Your task to perform on an android device: Search for "razer thresher" on newegg.com, select the first entry, add it to the cart, then select checkout. Image 0: 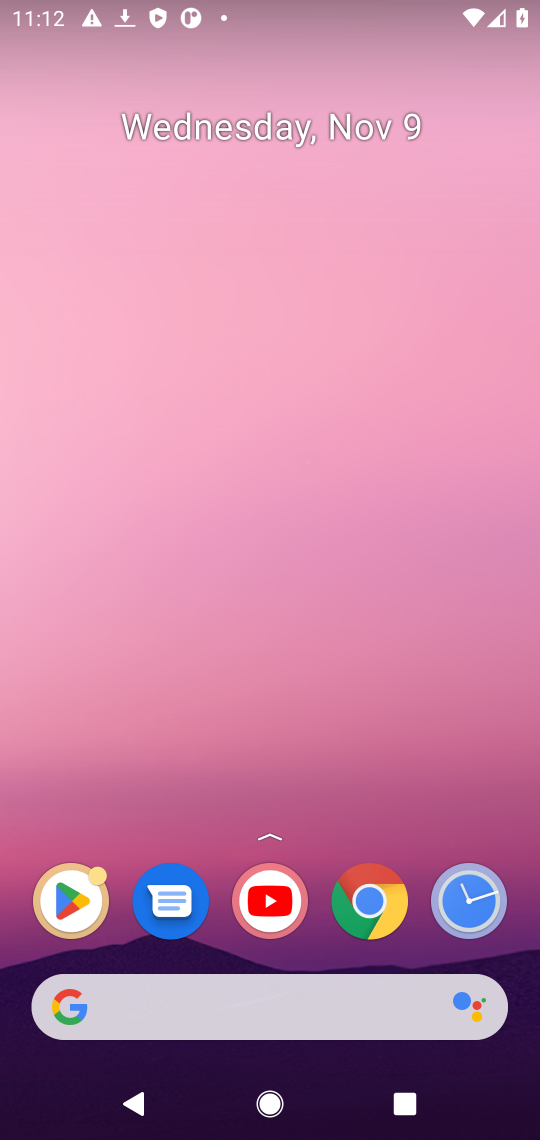
Step 0: click (379, 885)
Your task to perform on an android device: Search for "razer thresher" on newegg.com, select the first entry, add it to the cart, then select checkout. Image 1: 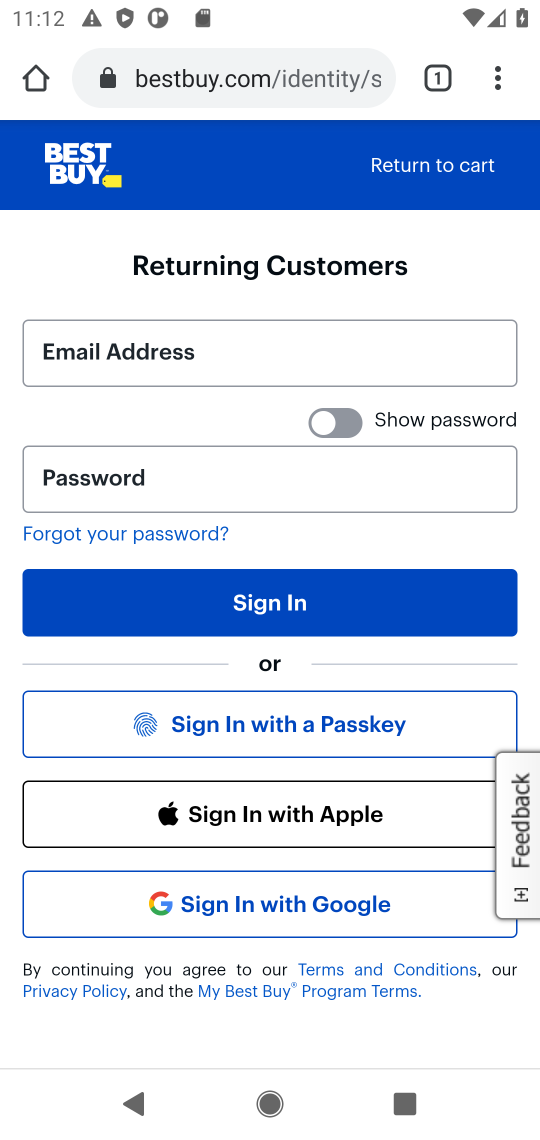
Step 1: click (267, 70)
Your task to perform on an android device: Search for "razer thresher" on newegg.com, select the first entry, add it to the cart, then select checkout. Image 2: 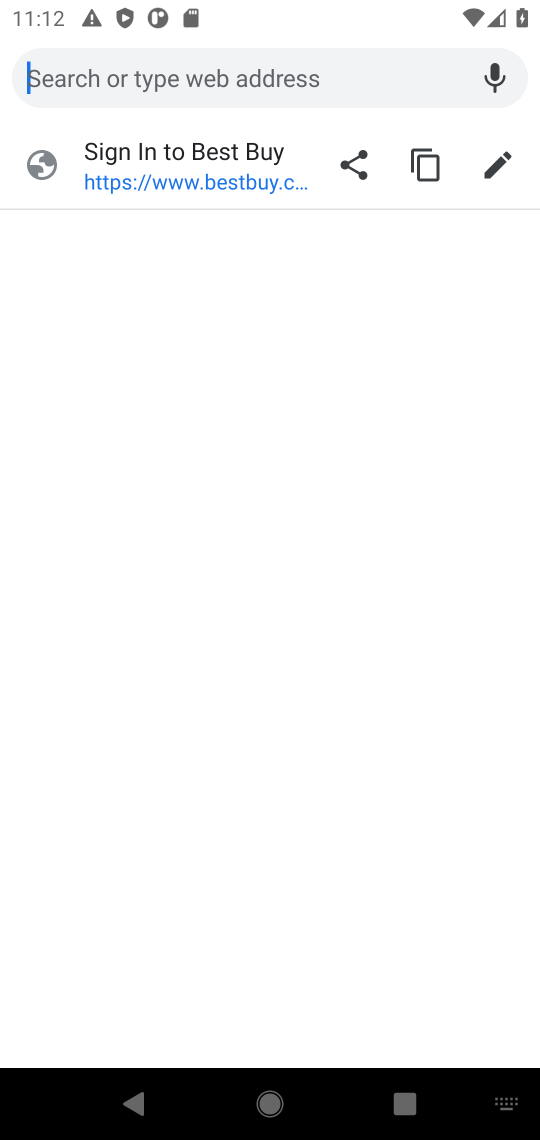
Step 2: type "newegg.com"
Your task to perform on an android device: Search for "razer thresher" on newegg.com, select the first entry, add it to the cart, then select checkout. Image 3: 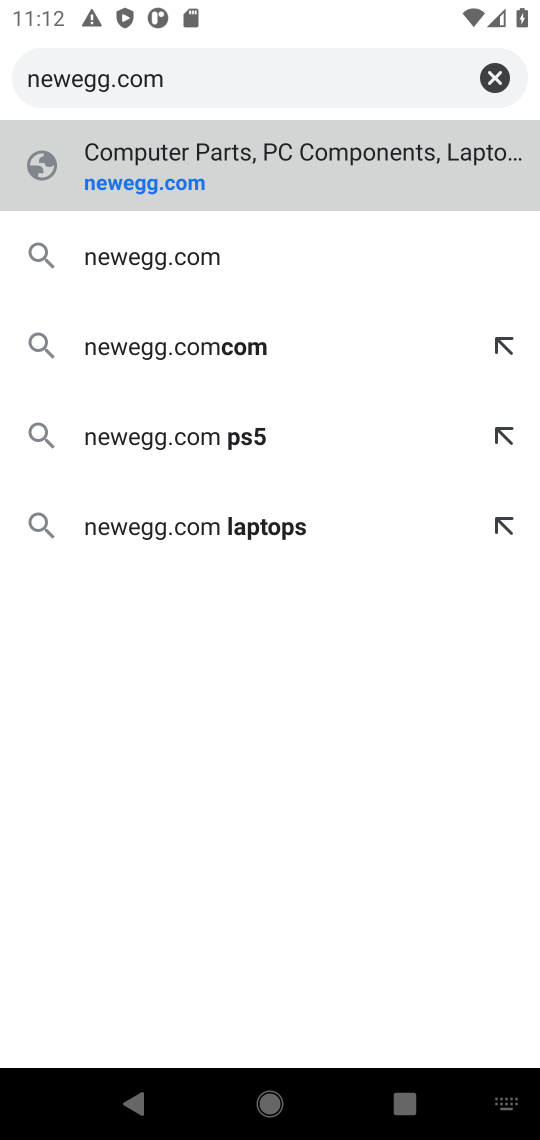
Step 3: press enter
Your task to perform on an android device: Search for "razer thresher" on newegg.com, select the first entry, add it to the cart, then select checkout. Image 4: 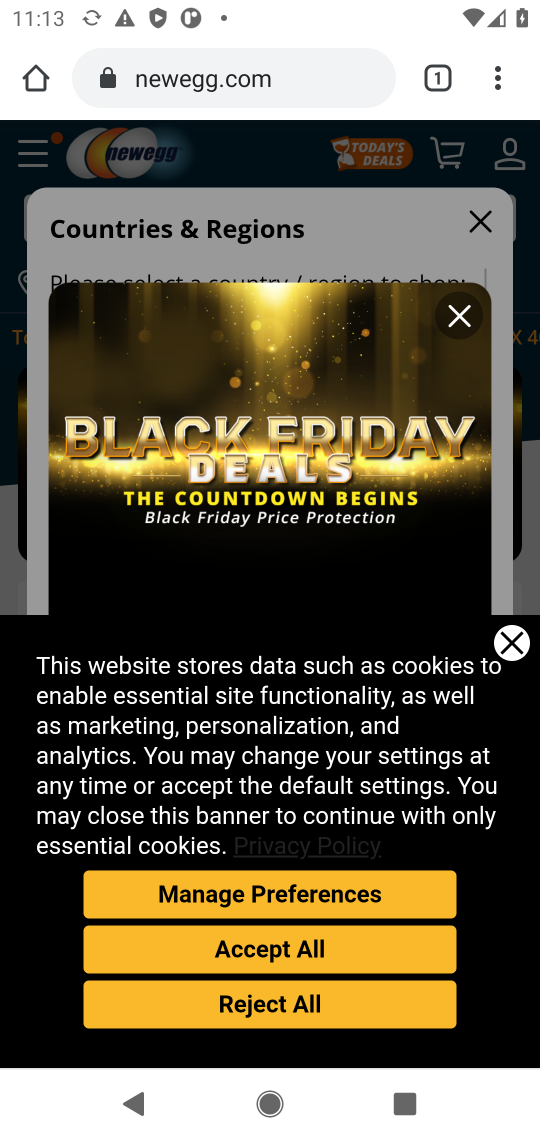
Step 4: click (278, 943)
Your task to perform on an android device: Search for "razer thresher" on newegg.com, select the first entry, add it to the cart, then select checkout. Image 5: 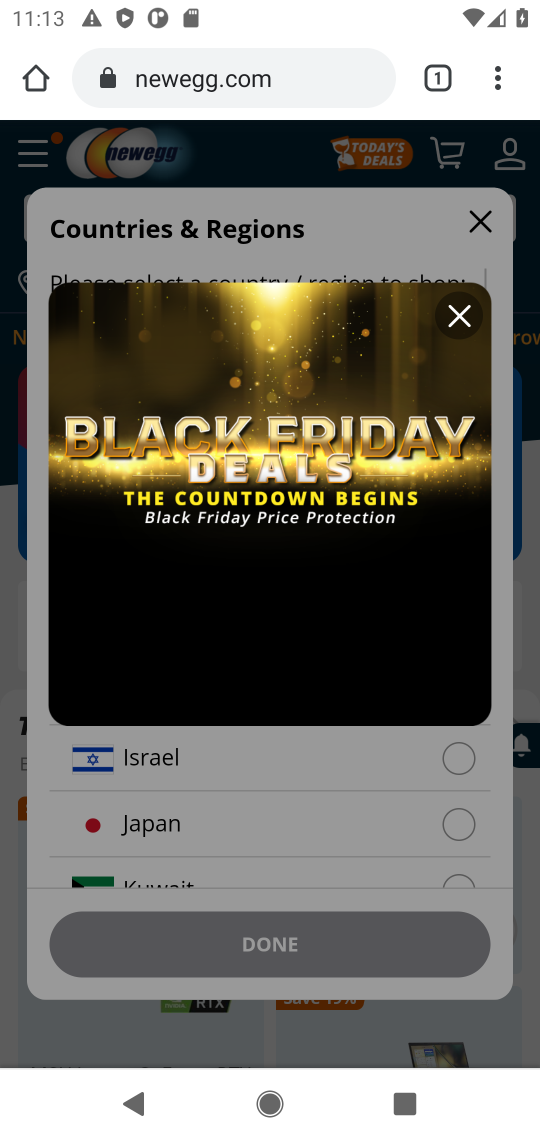
Step 5: click (462, 311)
Your task to perform on an android device: Search for "razer thresher" on newegg.com, select the first entry, add it to the cart, then select checkout. Image 6: 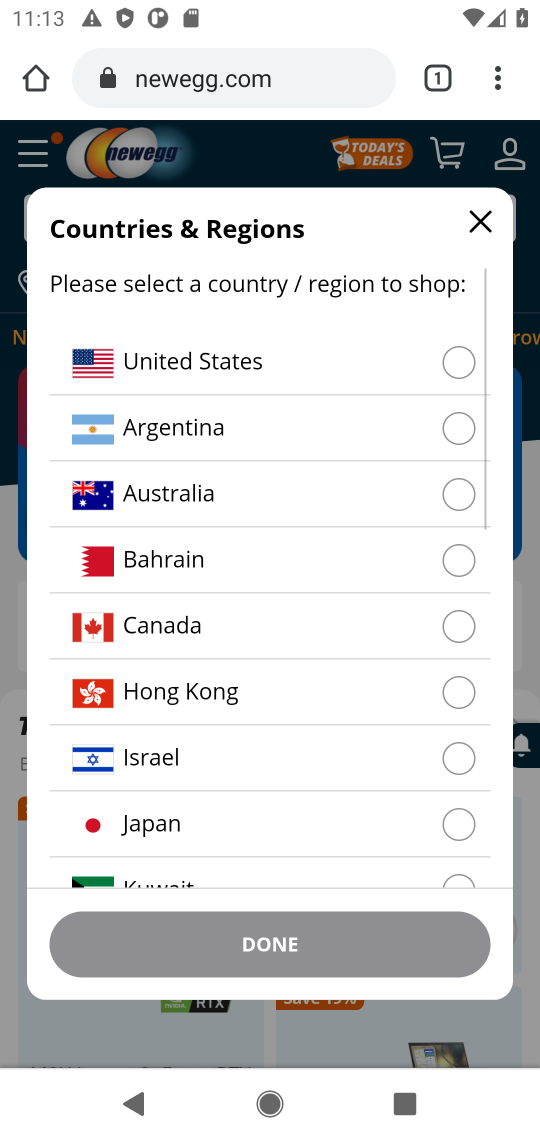
Step 6: click (463, 364)
Your task to perform on an android device: Search for "razer thresher" on newegg.com, select the first entry, add it to the cart, then select checkout. Image 7: 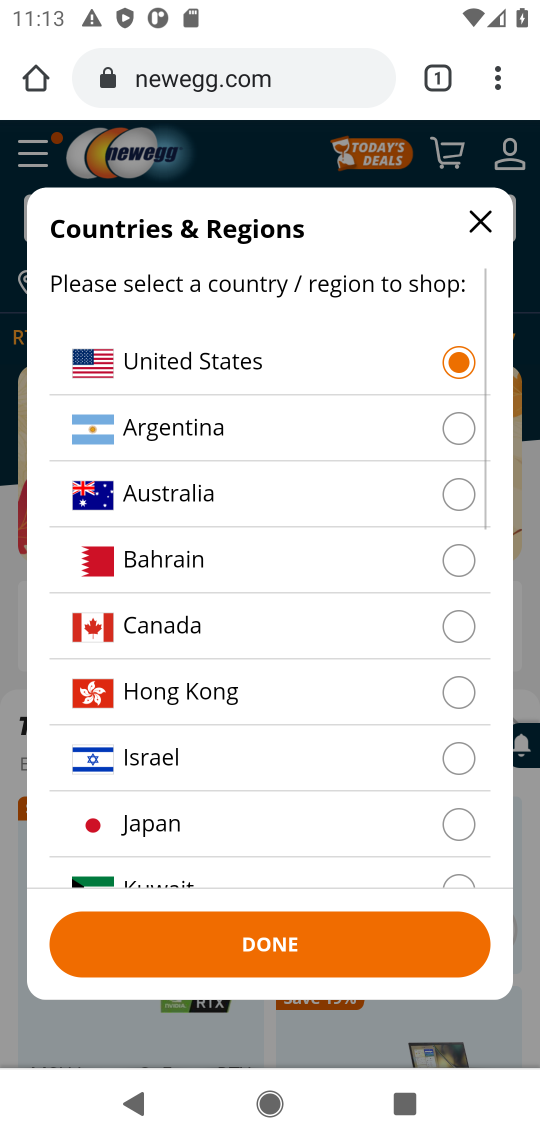
Step 7: click (368, 941)
Your task to perform on an android device: Search for "razer thresher" on newegg.com, select the first entry, add it to the cart, then select checkout. Image 8: 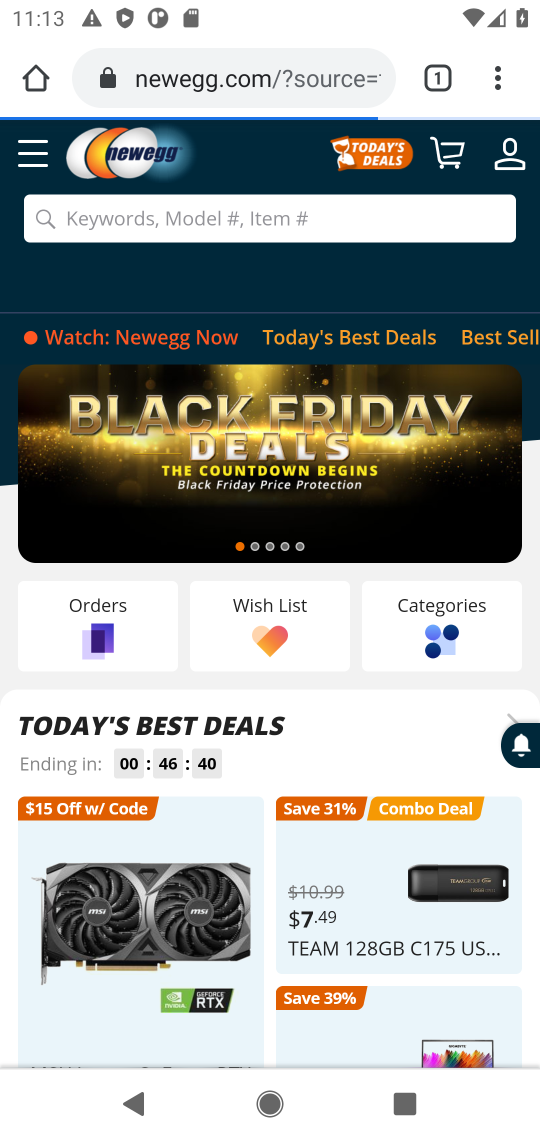
Step 8: click (326, 224)
Your task to perform on an android device: Search for "razer thresher" on newegg.com, select the first entry, add it to the cart, then select checkout. Image 9: 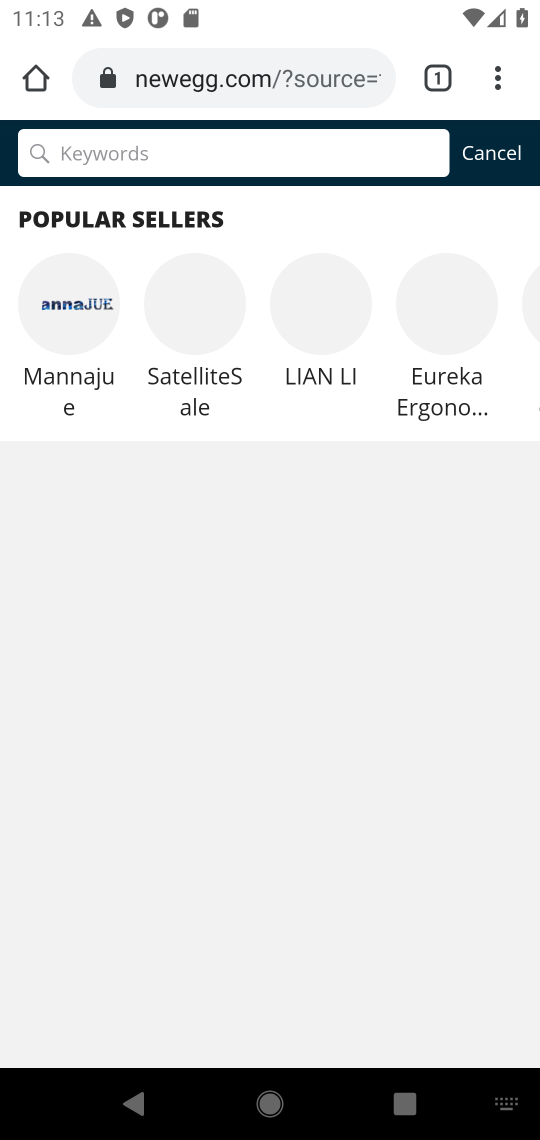
Step 9: type "razer thresher"
Your task to perform on an android device: Search for "razer thresher" on newegg.com, select the first entry, add it to the cart, then select checkout. Image 10: 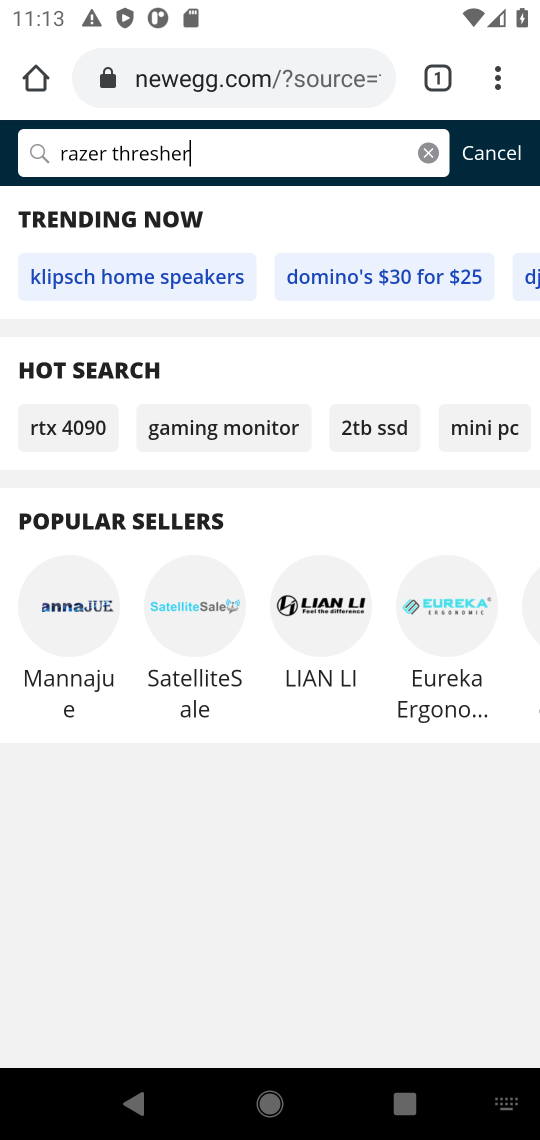
Step 10: press enter
Your task to perform on an android device: Search for "razer thresher" on newegg.com, select the first entry, add it to the cart, then select checkout. Image 11: 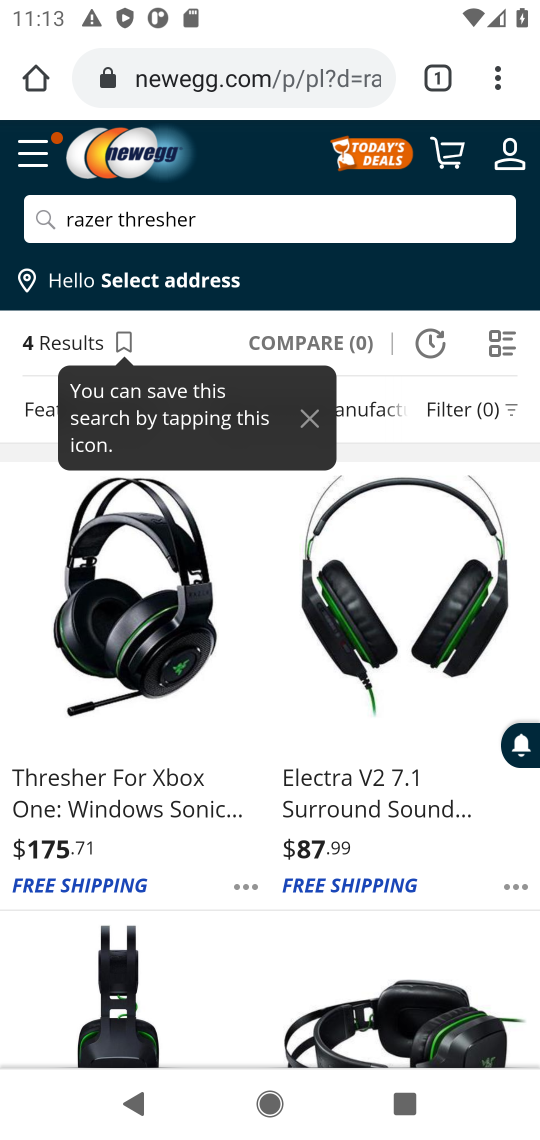
Step 11: drag from (417, 810) to (442, 264)
Your task to perform on an android device: Search for "razer thresher" on newegg.com, select the first entry, add it to the cart, then select checkout. Image 12: 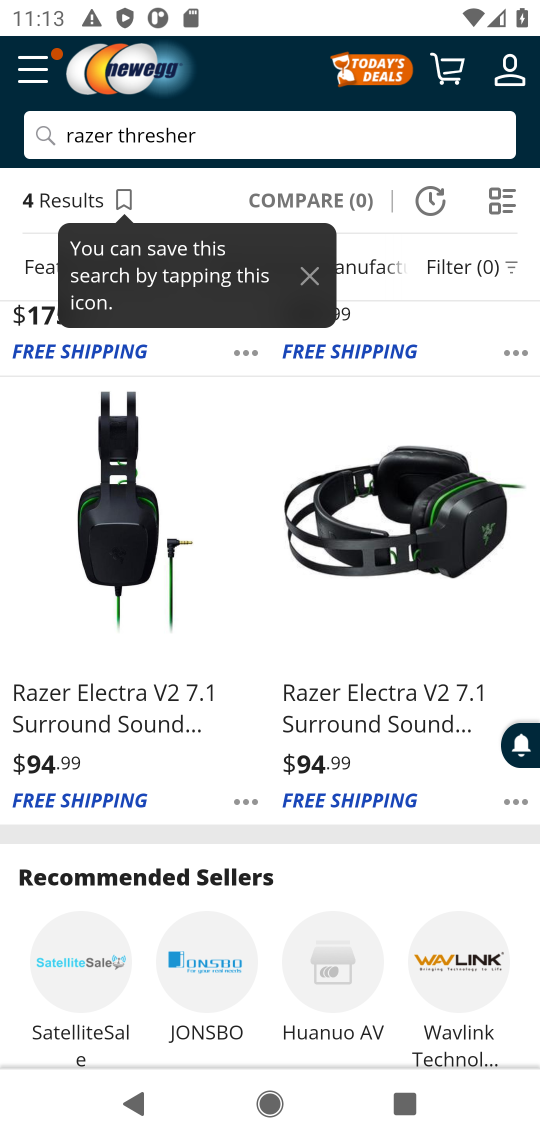
Step 12: drag from (409, 673) to (436, 349)
Your task to perform on an android device: Search for "razer thresher" on newegg.com, select the first entry, add it to the cart, then select checkout. Image 13: 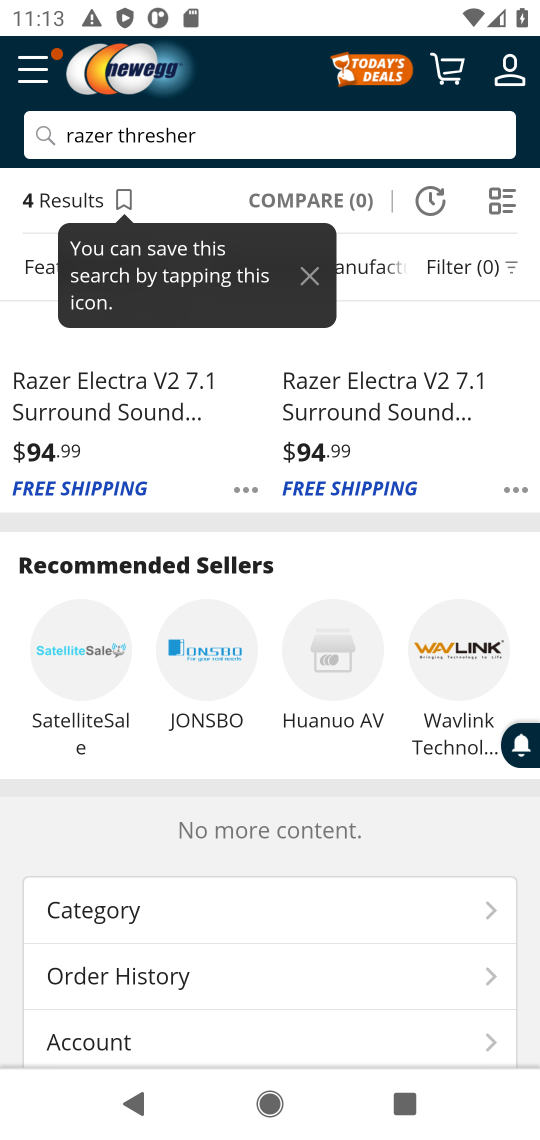
Step 13: drag from (355, 910) to (393, 472)
Your task to perform on an android device: Search for "razer thresher" on newegg.com, select the first entry, add it to the cart, then select checkout. Image 14: 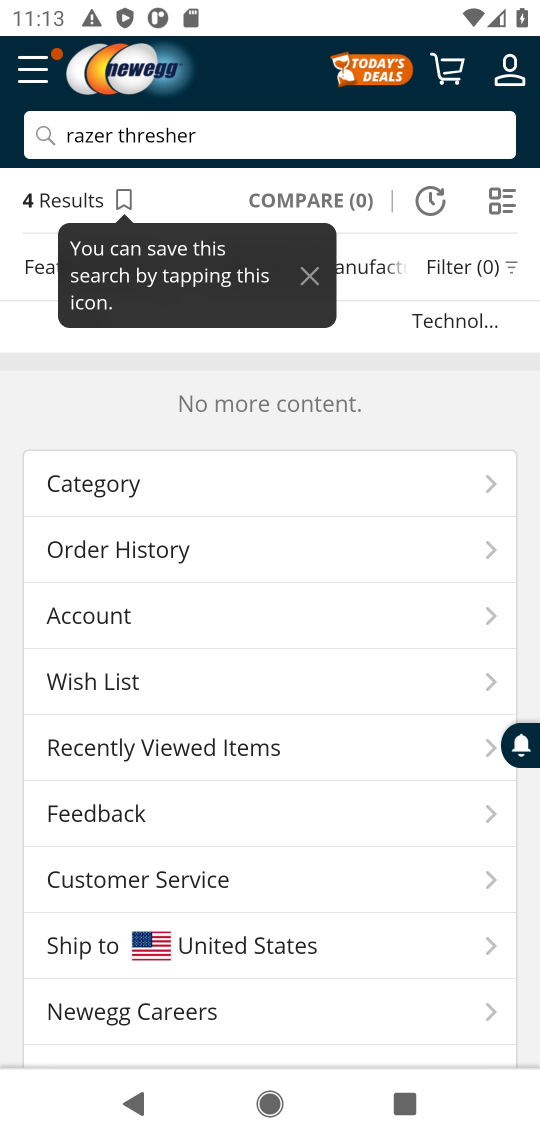
Step 14: drag from (451, 467) to (499, 951)
Your task to perform on an android device: Search for "razer thresher" on newegg.com, select the first entry, add it to the cart, then select checkout. Image 15: 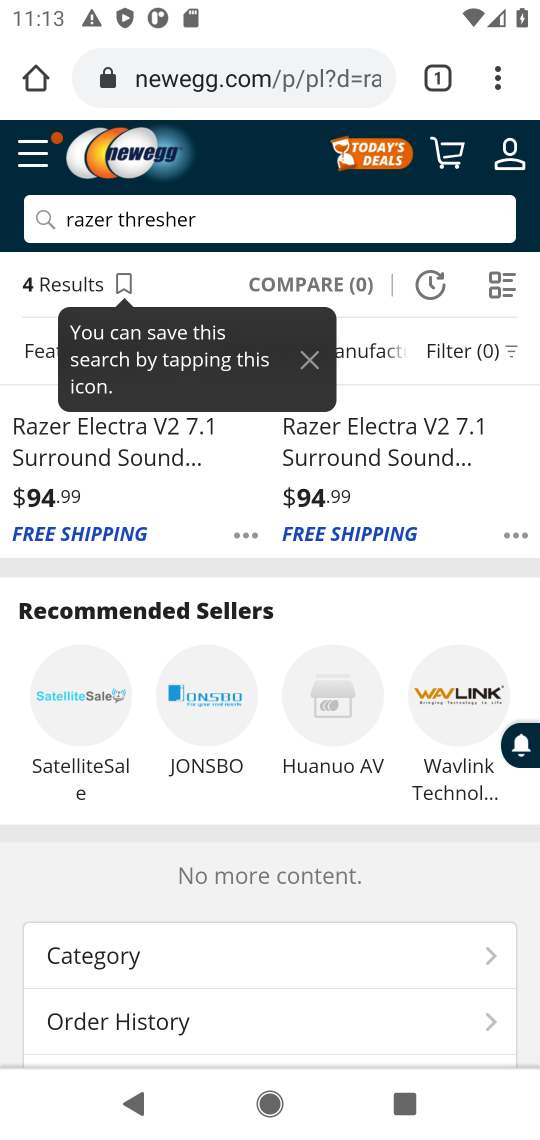
Step 15: drag from (370, 690) to (451, 987)
Your task to perform on an android device: Search for "razer thresher" on newegg.com, select the first entry, add it to the cart, then select checkout. Image 16: 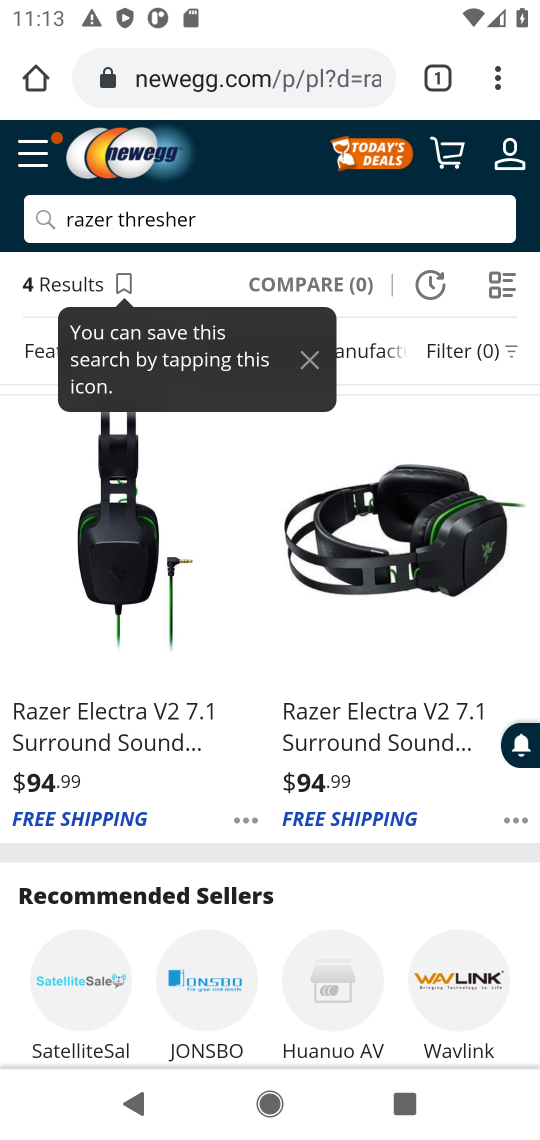
Step 16: drag from (368, 595) to (483, 972)
Your task to perform on an android device: Search for "razer thresher" on newegg.com, select the first entry, add it to the cart, then select checkout. Image 17: 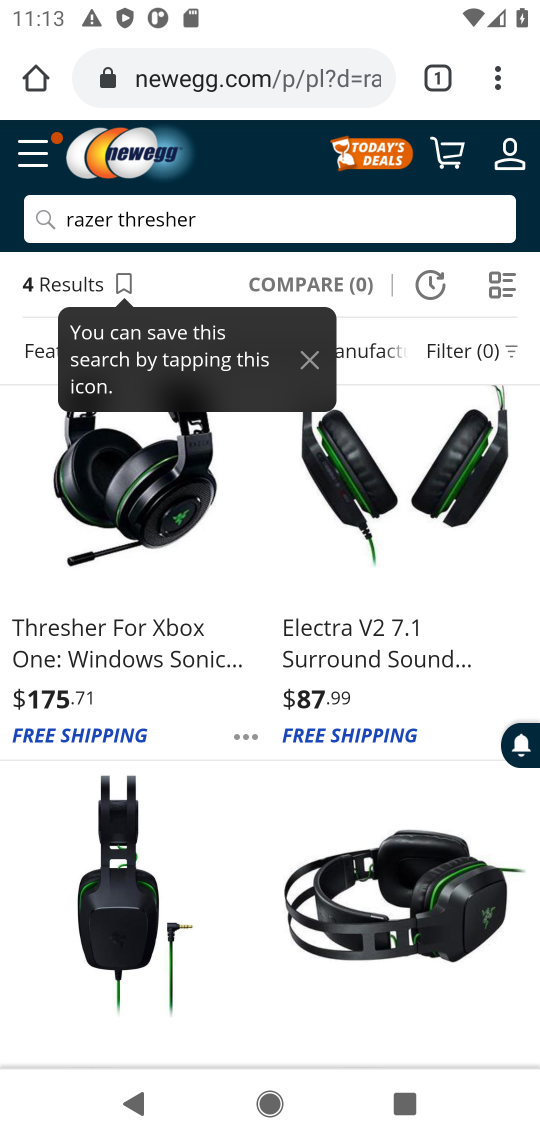
Step 17: drag from (416, 687) to (452, 929)
Your task to perform on an android device: Search for "razer thresher" on newegg.com, select the first entry, add it to the cart, then select checkout. Image 18: 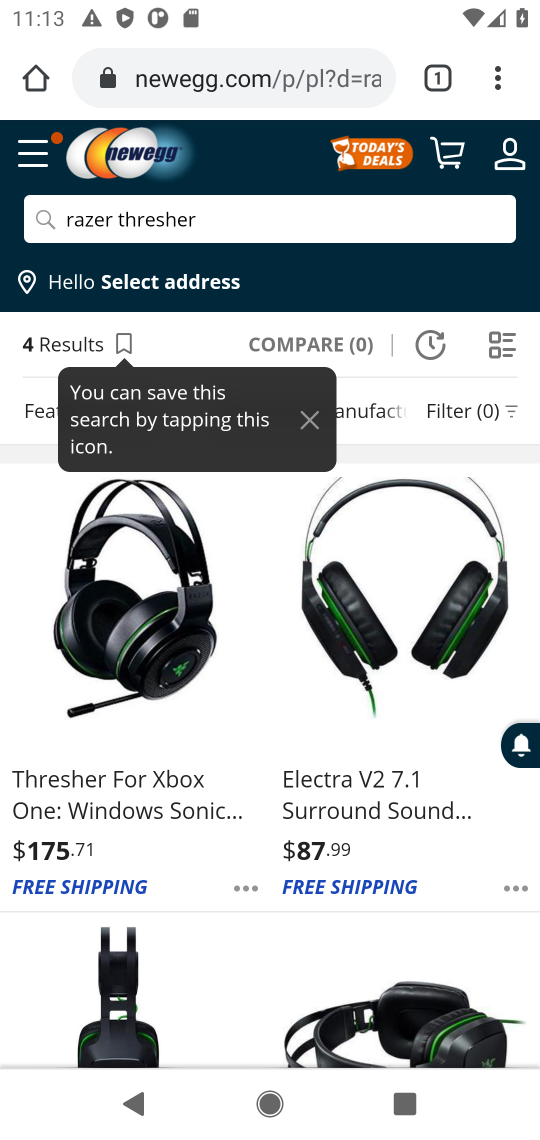
Step 18: click (381, 207)
Your task to perform on an android device: Search for "razer thresher" on newegg.com, select the first entry, add it to the cart, then select checkout. Image 19: 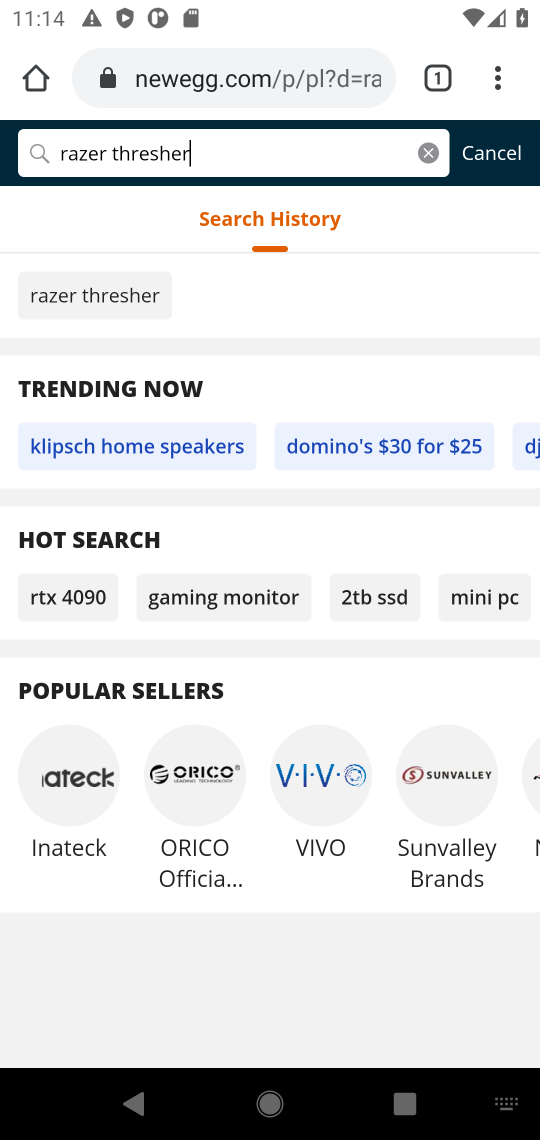
Step 19: click (120, 283)
Your task to perform on an android device: Search for "razer thresher" on newegg.com, select the first entry, add it to the cart, then select checkout. Image 20: 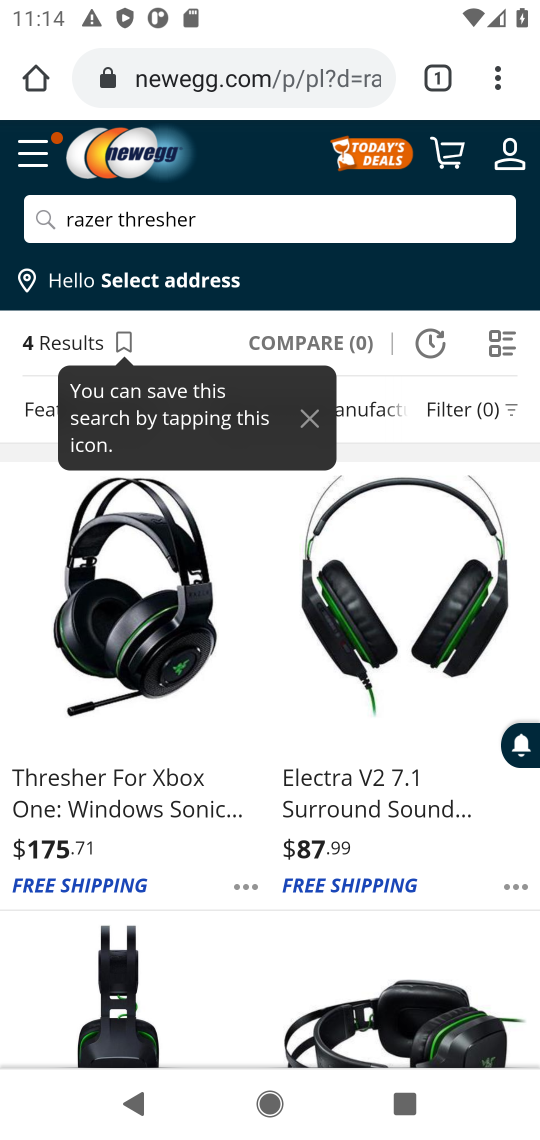
Step 20: task complete